Your task to perform on an android device: turn on the 24-hour format for clock Image 0: 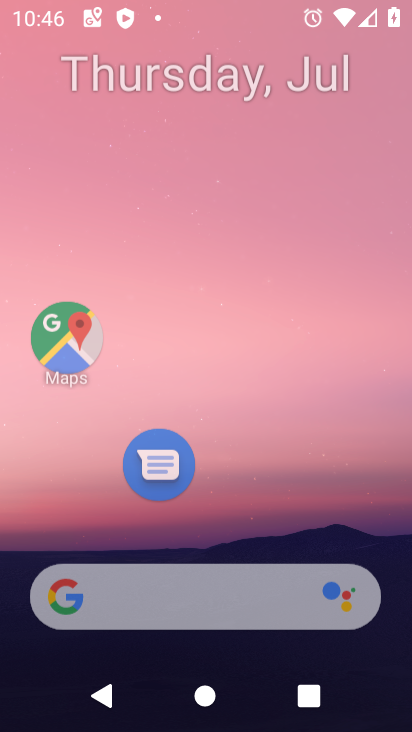
Step 0: press home button
Your task to perform on an android device: turn on the 24-hour format for clock Image 1: 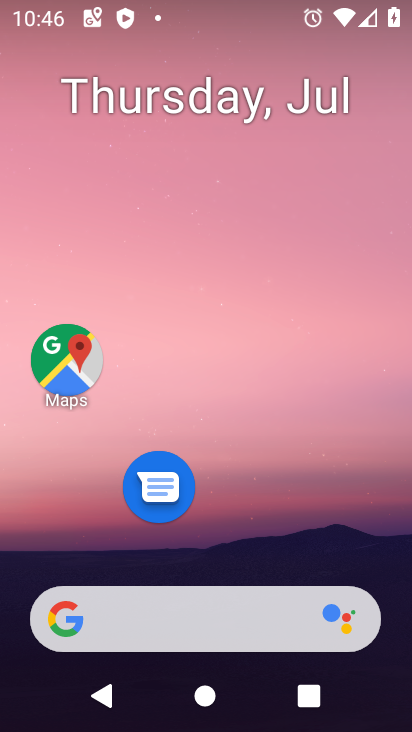
Step 1: drag from (240, 575) to (279, 127)
Your task to perform on an android device: turn on the 24-hour format for clock Image 2: 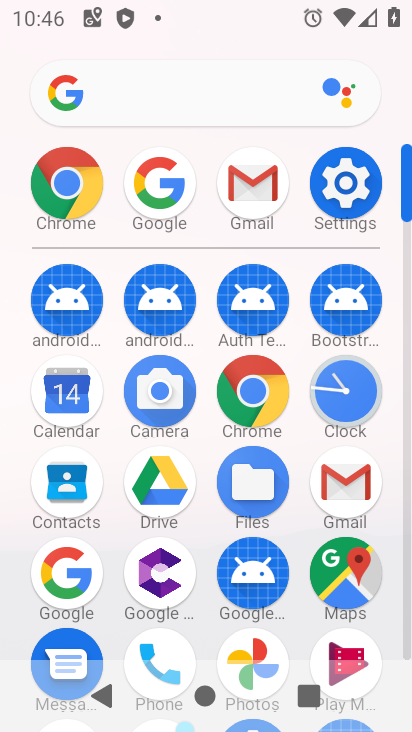
Step 2: drag from (242, 527) to (293, 243)
Your task to perform on an android device: turn on the 24-hour format for clock Image 3: 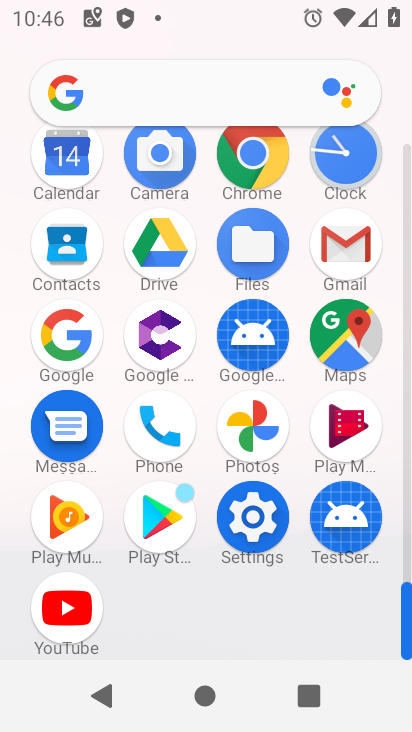
Step 3: click (343, 181)
Your task to perform on an android device: turn on the 24-hour format for clock Image 4: 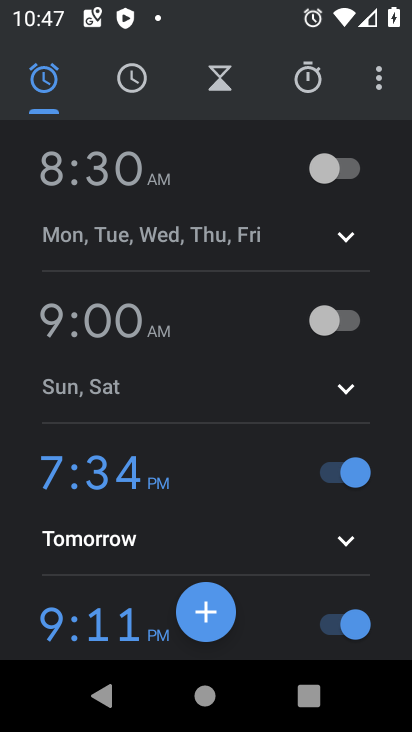
Step 4: click (365, 89)
Your task to perform on an android device: turn on the 24-hour format for clock Image 5: 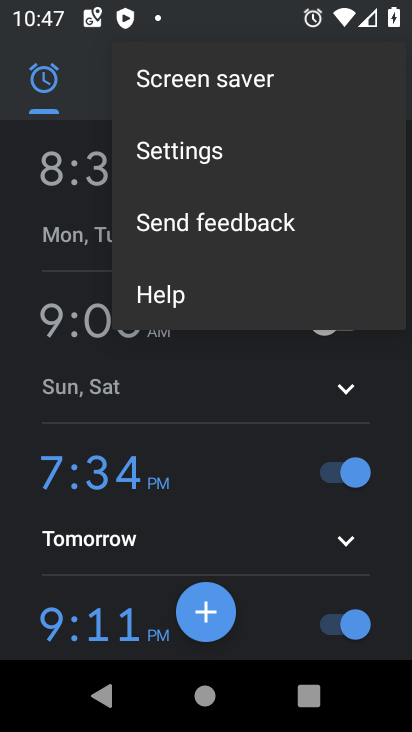
Step 5: click (188, 160)
Your task to perform on an android device: turn on the 24-hour format for clock Image 6: 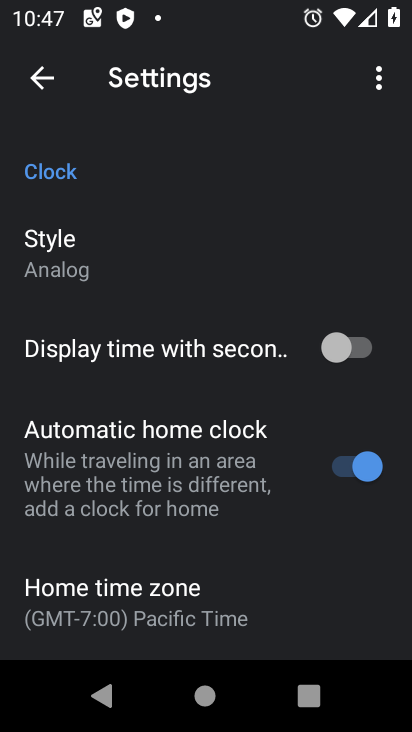
Step 6: drag from (187, 533) to (234, 269)
Your task to perform on an android device: turn on the 24-hour format for clock Image 7: 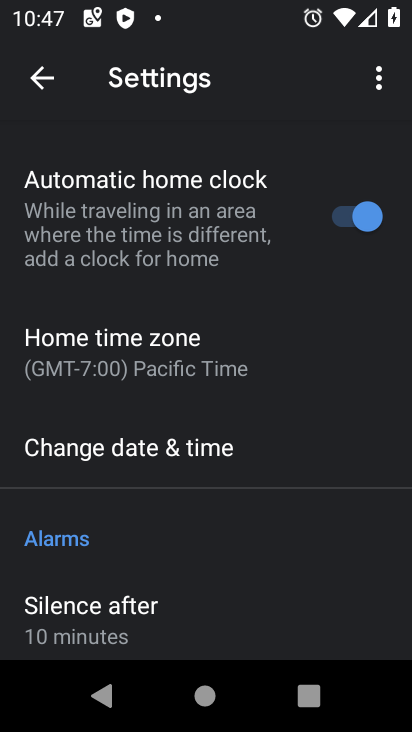
Step 7: click (179, 447)
Your task to perform on an android device: turn on the 24-hour format for clock Image 8: 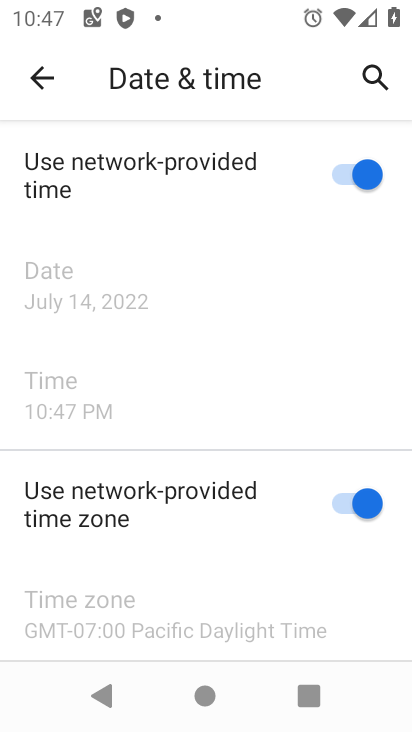
Step 8: task complete